Your task to perform on an android device: open a new tab in the chrome app Image 0: 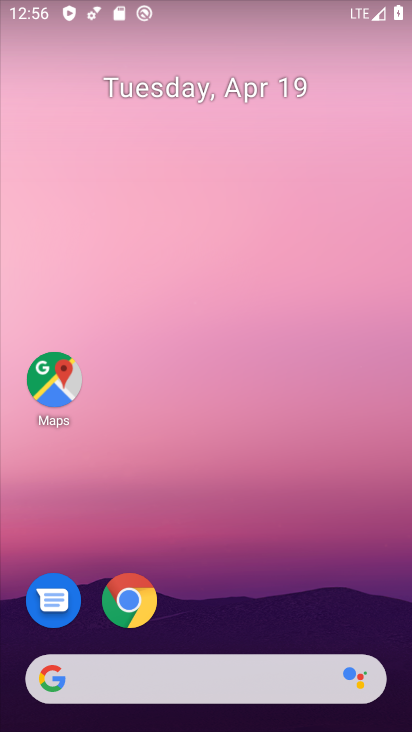
Step 0: click (143, 596)
Your task to perform on an android device: open a new tab in the chrome app Image 1: 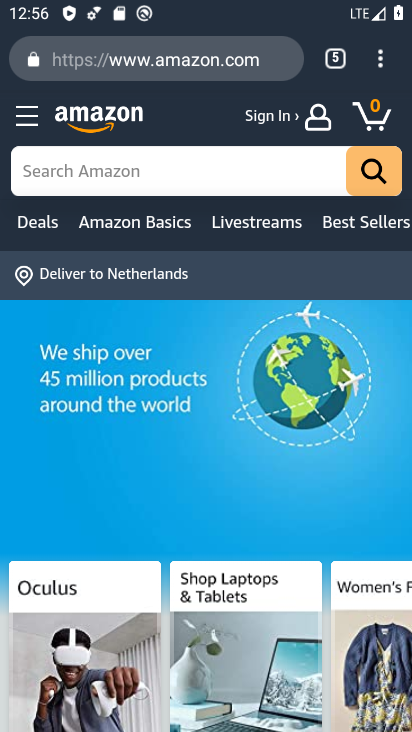
Step 1: click (324, 63)
Your task to perform on an android device: open a new tab in the chrome app Image 2: 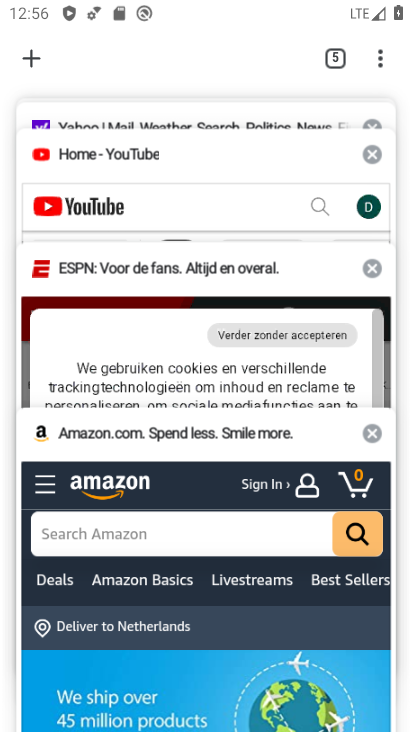
Step 2: click (20, 61)
Your task to perform on an android device: open a new tab in the chrome app Image 3: 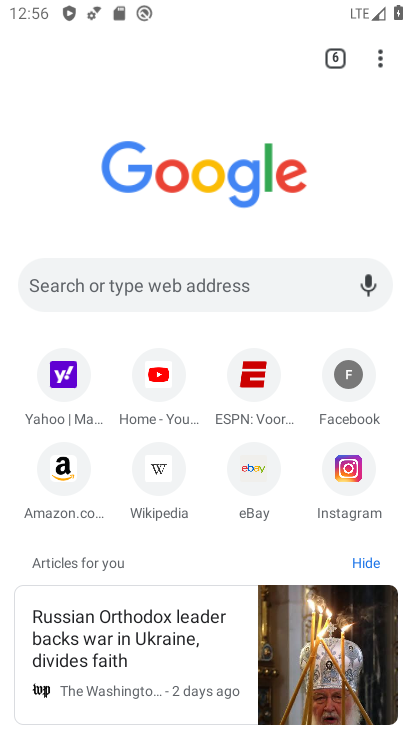
Step 3: task complete